Your task to perform on an android device: turn on sleep mode Image 0: 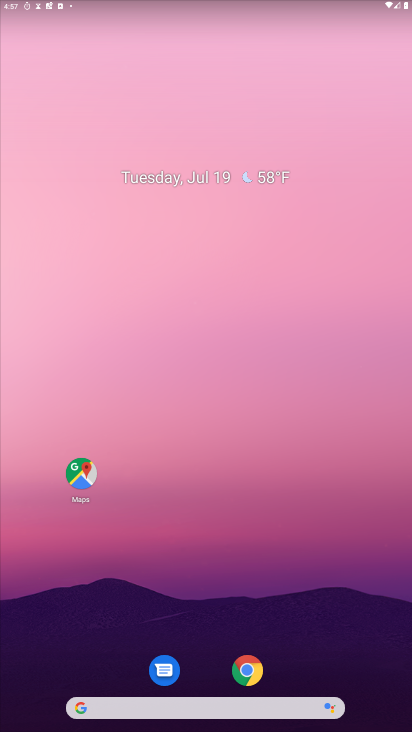
Step 0: drag from (227, 716) to (320, 4)
Your task to perform on an android device: turn on sleep mode Image 1: 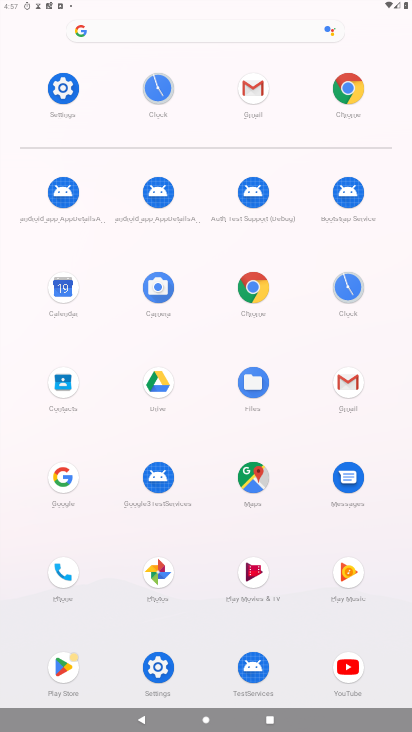
Step 1: click (56, 84)
Your task to perform on an android device: turn on sleep mode Image 2: 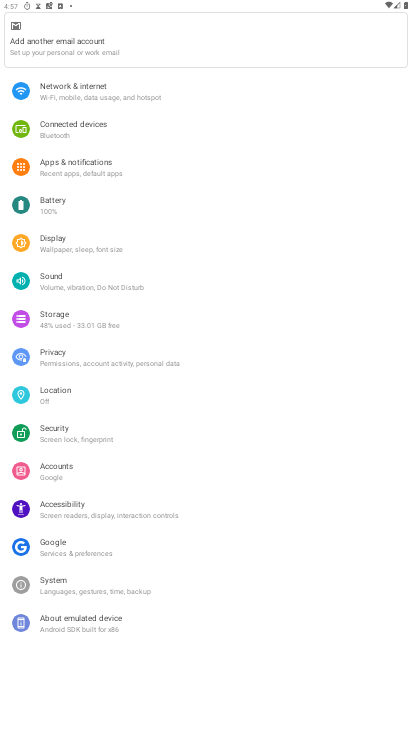
Step 2: click (115, 289)
Your task to perform on an android device: turn on sleep mode Image 3: 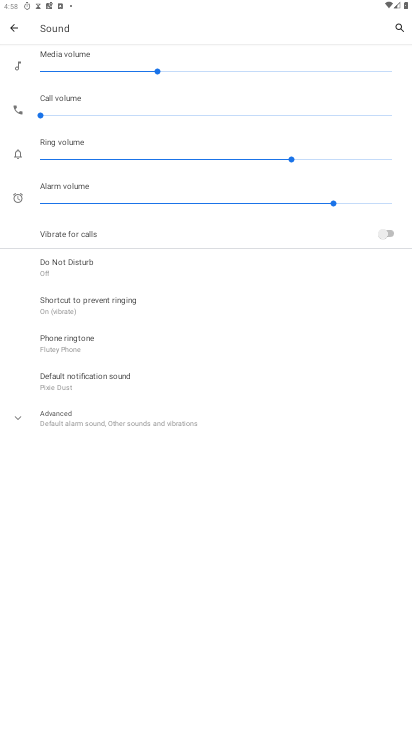
Step 3: task complete